Your task to perform on an android device: clear history in the chrome app Image 0: 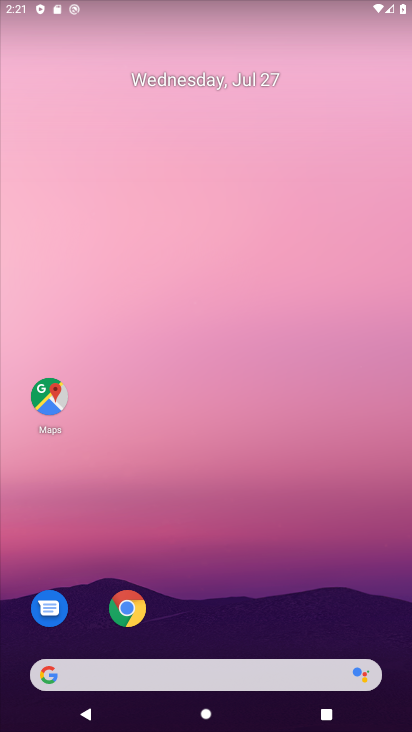
Step 0: press home button
Your task to perform on an android device: clear history in the chrome app Image 1: 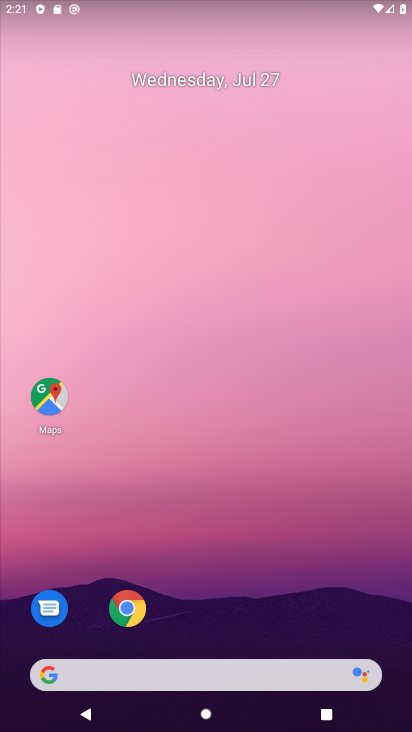
Step 1: click (123, 599)
Your task to perform on an android device: clear history in the chrome app Image 2: 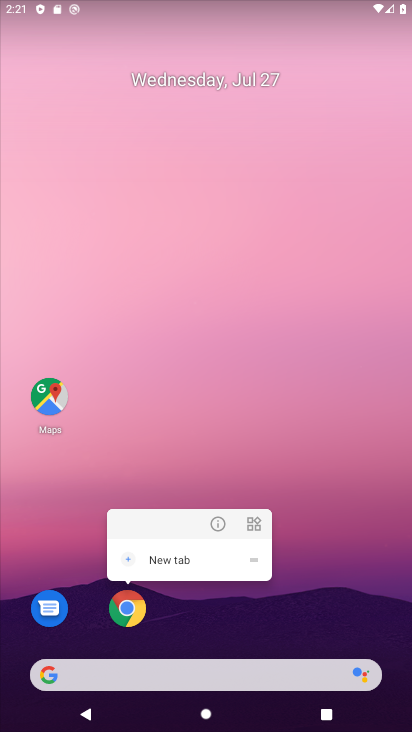
Step 2: click (123, 606)
Your task to perform on an android device: clear history in the chrome app Image 3: 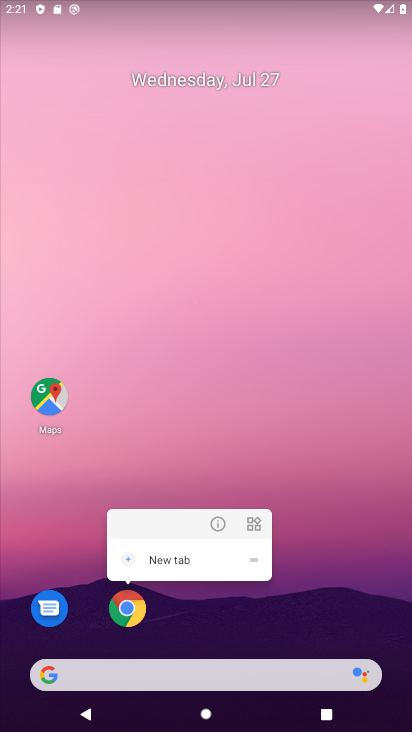
Step 3: click (286, 618)
Your task to perform on an android device: clear history in the chrome app Image 4: 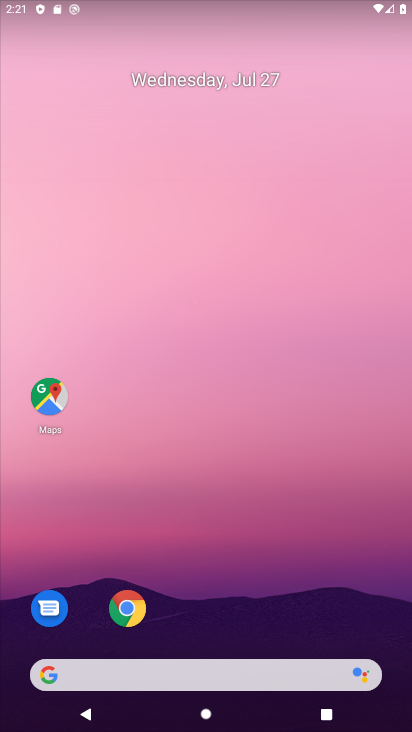
Step 4: drag from (288, 632) to (290, 0)
Your task to perform on an android device: clear history in the chrome app Image 5: 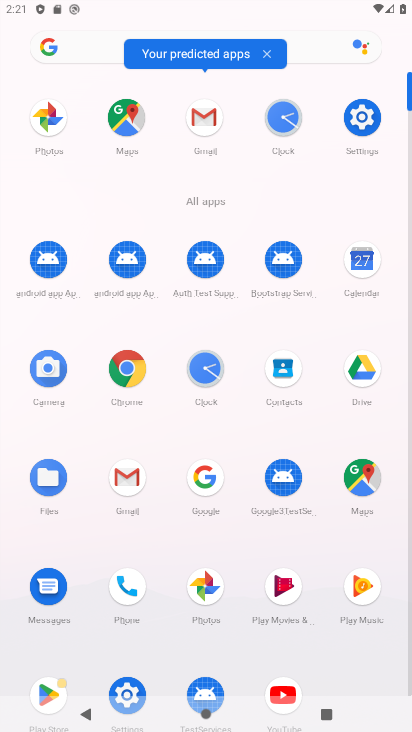
Step 5: click (134, 364)
Your task to perform on an android device: clear history in the chrome app Image 6: 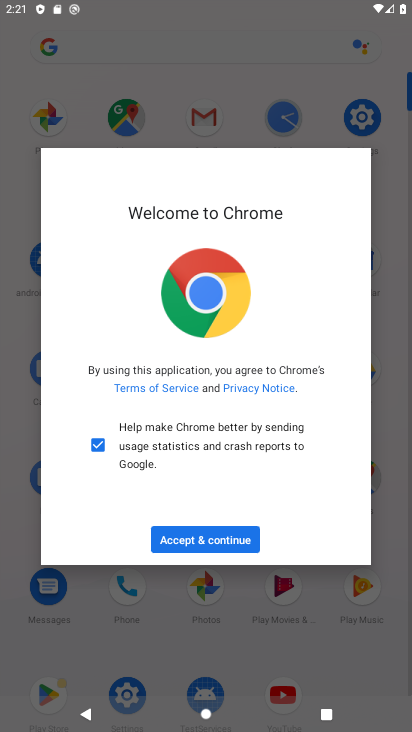
Step 6: click (223, 536)
Your task to perform on an android device: clear history in the chrome app Image 7: 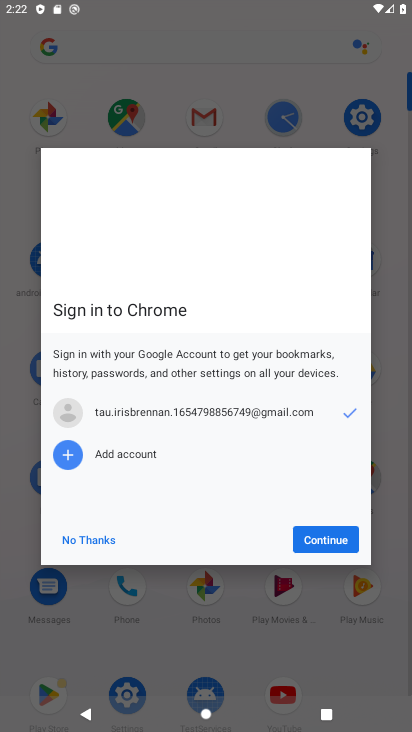
Step 7: click (339, 534)
Your task to perform on an android device: clear history in the chrome app Image 8: 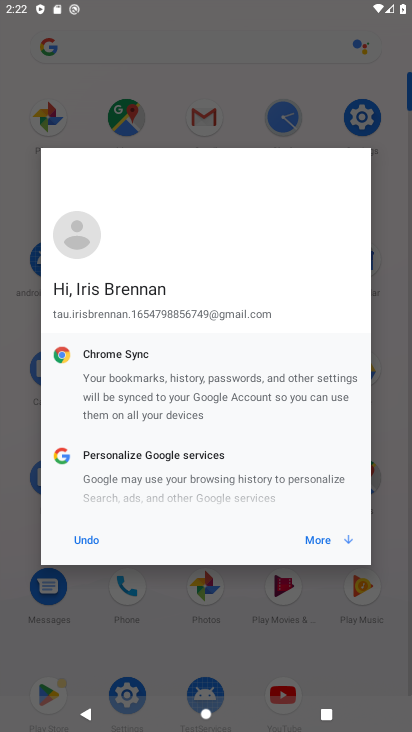
Step 8: click (339, 534)
Your task to perform on an android device: clear history in the chrome app Image 9: 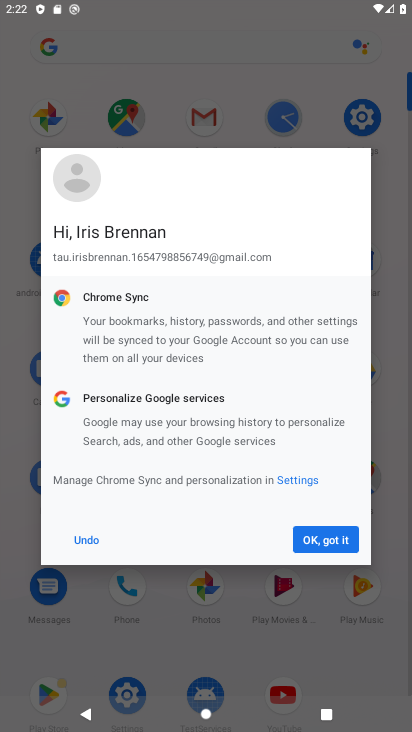
Step 9: click (313, 530)
Your task to perform on an android device: clear history in the chrome app Image 10: 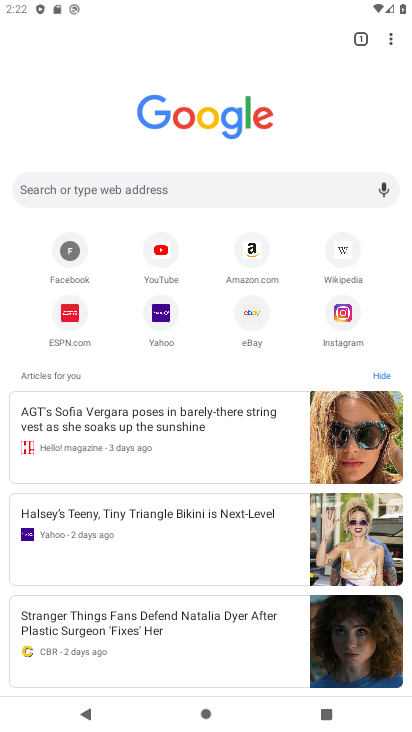
Step 10: click (389, 37)
Your task to perform on an android device: clear history in the chrome app Image 11: 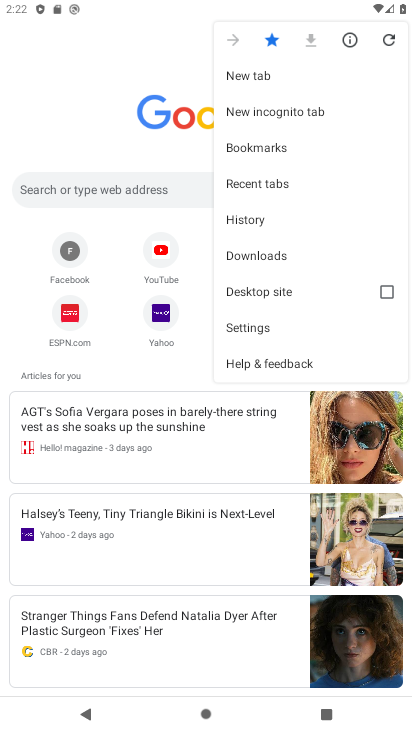
Step 11: click (281, 216)
Your task to perform on an android device: clear history in the chrome app Image 12: 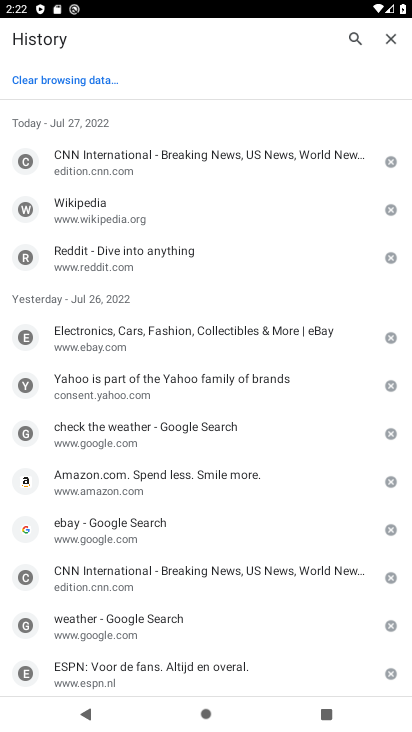
Step 12: click (91, 76)
Your task to perform on an android device: clear history in the chrome app Image 13: 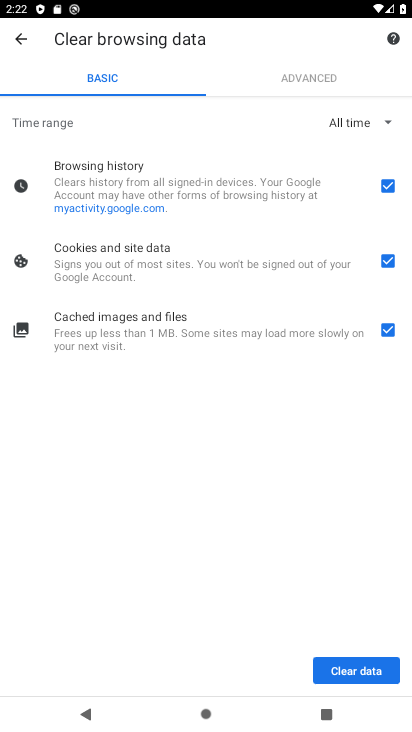
Step 13: click (395, 665)
Your task to perform on an android device: clear history in the chrome app Image 14: 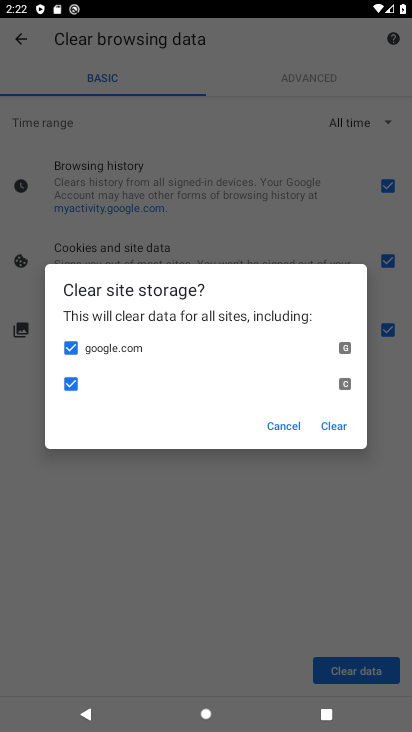
Step 14: click (329, 429)
Your task to perform on an android device: clear history in the chrome app Image 15: 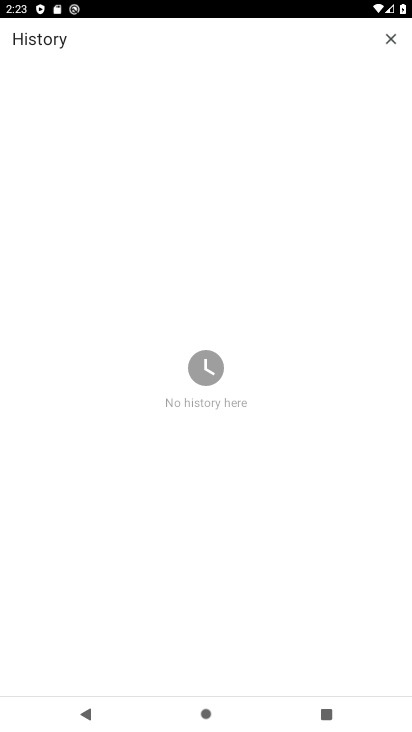
Step 15: task complete